Your task to perform on an android device: Go to location settings Image 0: 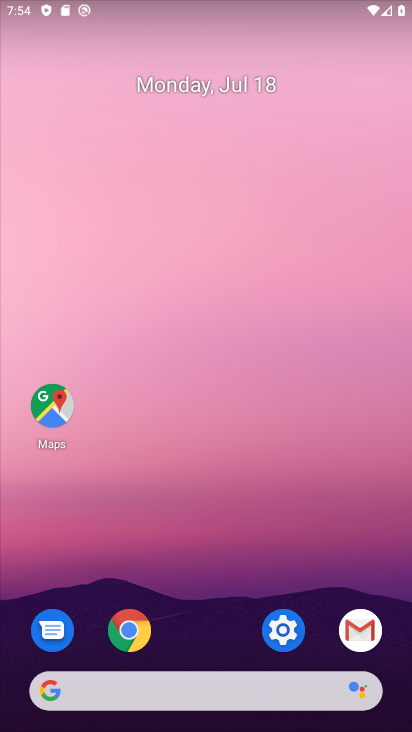
Step 0: click (292, 634)
Your task to perform on an android device: Go to location settings Image 1: 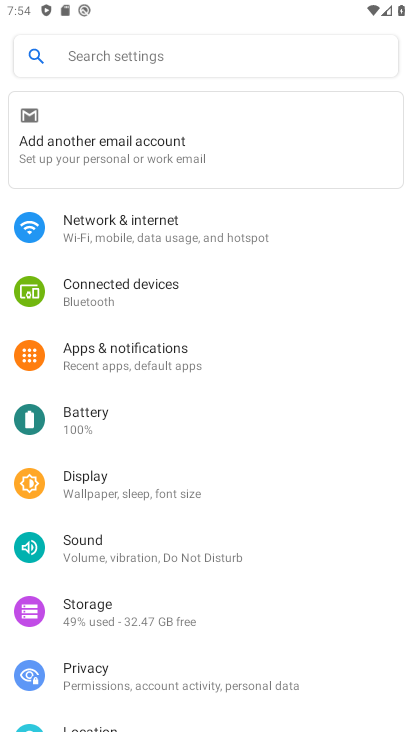
Step 1: click (151, 721)
Your task to perform on an android device: Go to location settings Image 2: 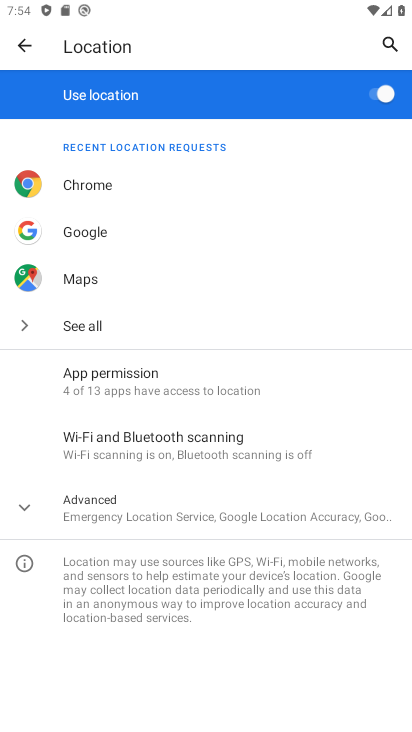
Step 2: click (38, 511)
Your task to perform on an android device: Go to location settings Image 3: 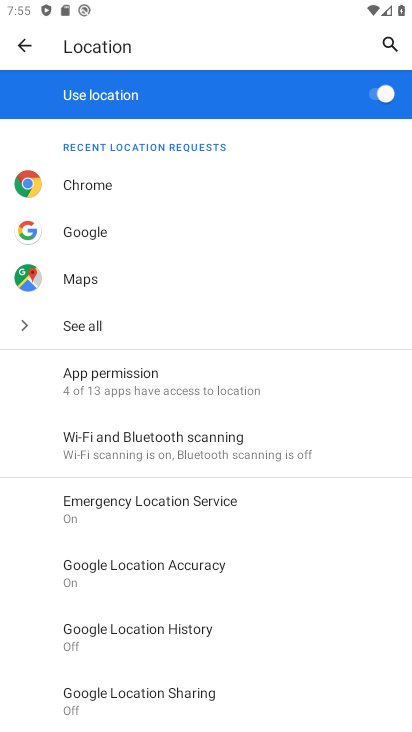
Step 3: task complete